Your task to perform on an android device: Open Google Maps and go to "Timeline" Image 0: 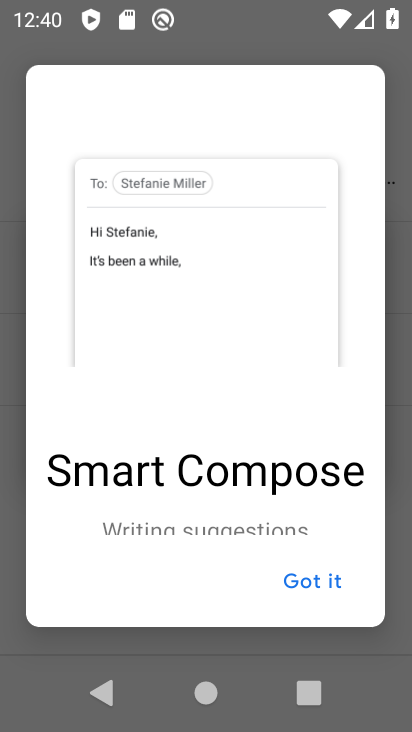
Step 0: press home button
Your task to perform on an android device: Open Google Maps and go to "Timeline" Image 1: 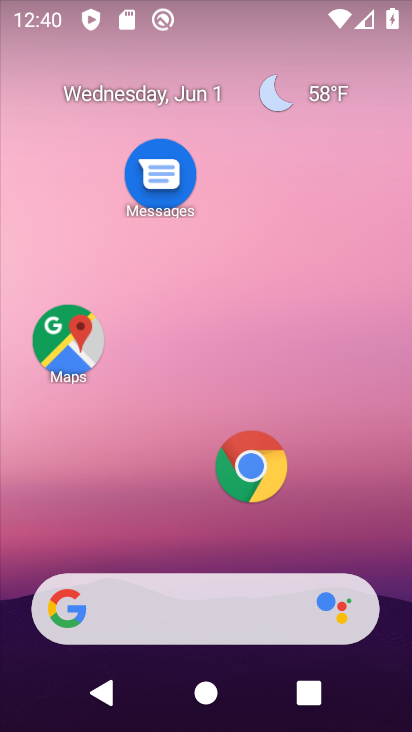
Step 1: click (82, 357)
Your task to perform on an android device: Open Google Maps and go to "Timeline" Image 2: 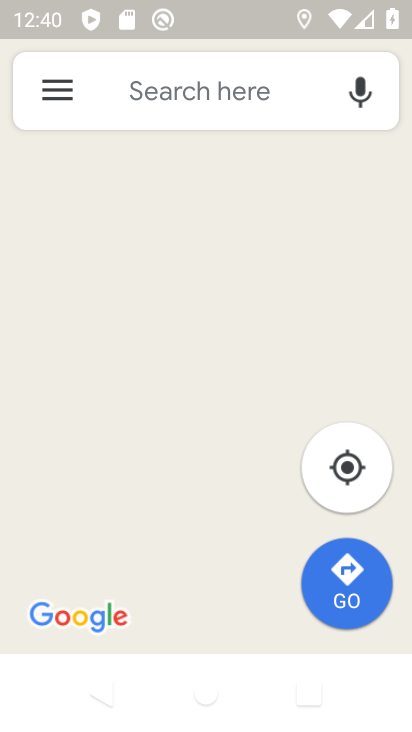
Step 2: click (57, 101)
Your task to perform on an android device: Open Google Maps and go to "Timeline" Image 3: 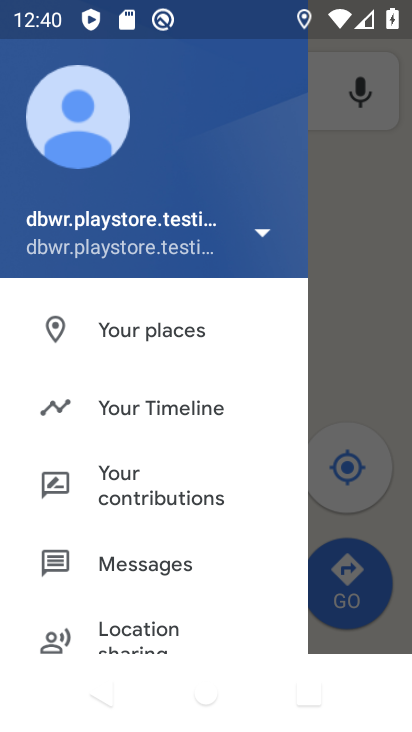
Step 3: click (151, 411)
Your task to perform on an android device: Open Google Maps and go to "Timeline" Image 4: 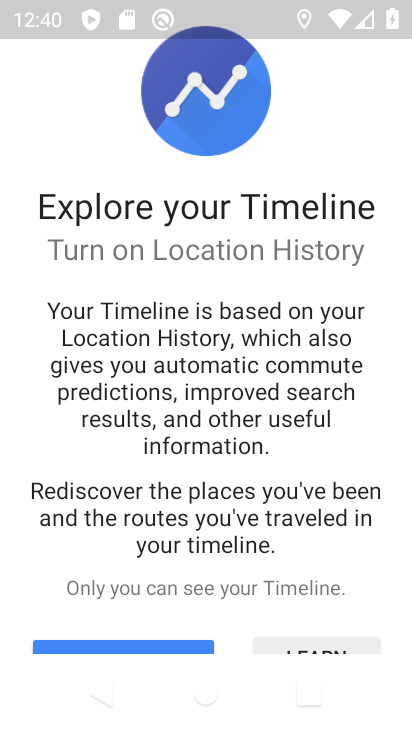
Step 4: drag from (319, 532) to (320, 187)
Your task to perform on an android device: Open Google Maps and go to "Timeline" Image 5: 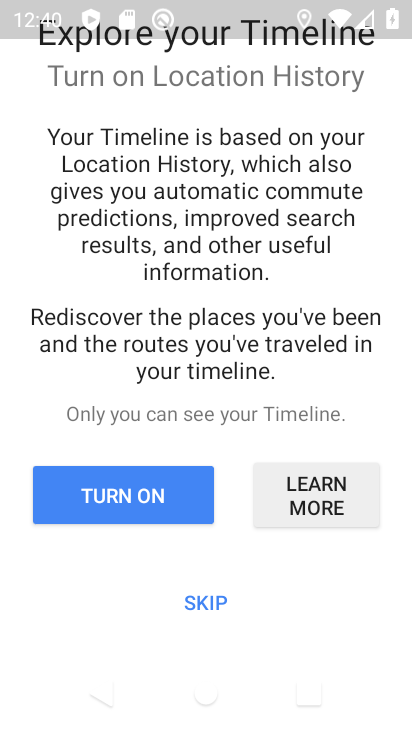
Step 5: click (192, 591)
Your task to perform on an android device: Open Google Maps and go to "Timeline" Image 6: 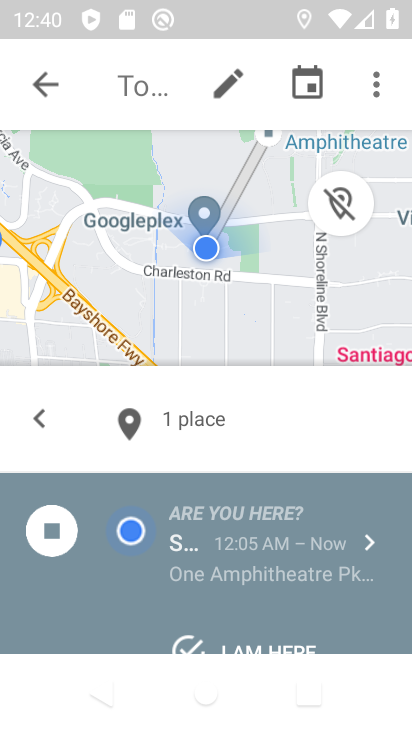
Step 6: task complete